Your task to perform on an android device: turn smart compose on in the gmail app Image 0: 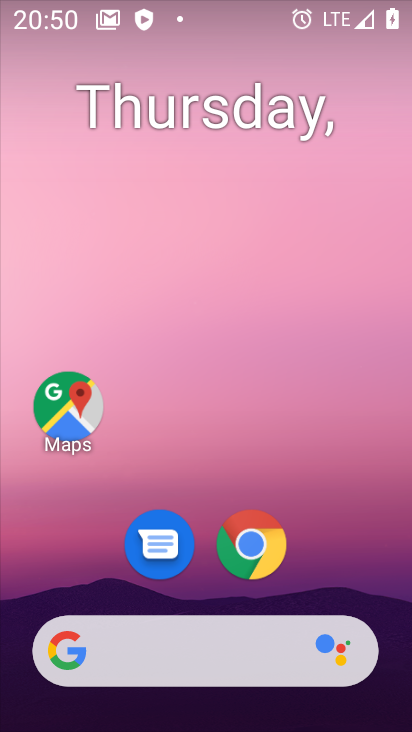
Step 0: drag from (193, 600) to (213, 14)
Your task to perform on an android device: turn smart compose on in the gmail app Image 1: 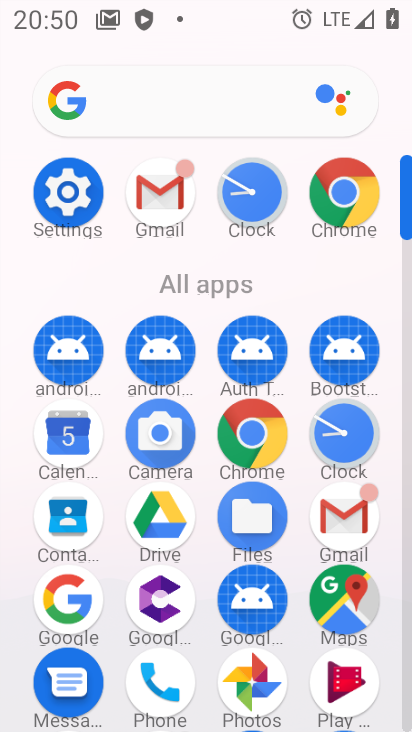
Step 1: click (341, 509)
Your task to perform on an android device: turn smart compose on in the gmail app Image 2: 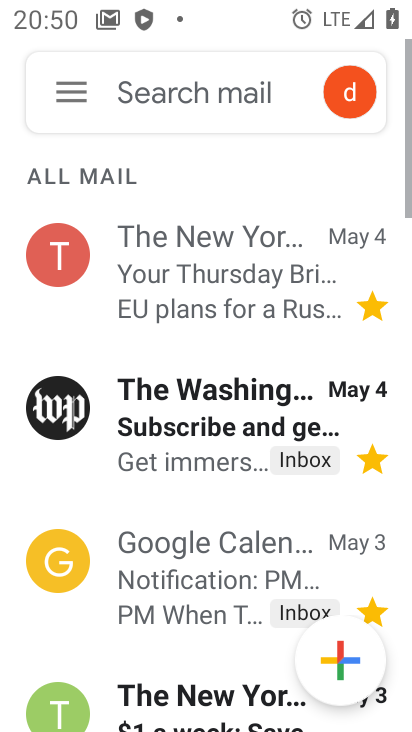
Step 2: click (76, 105)
Your task to perform on an android device: turn smart compose on in the gmail app Image 3: 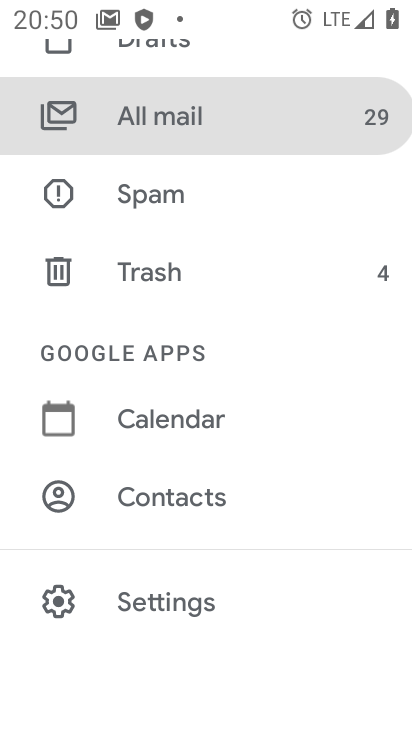
Step 3: click (154, 600)
Your task to perform on an android device: turn smart compose on in the gmail app Image 4: 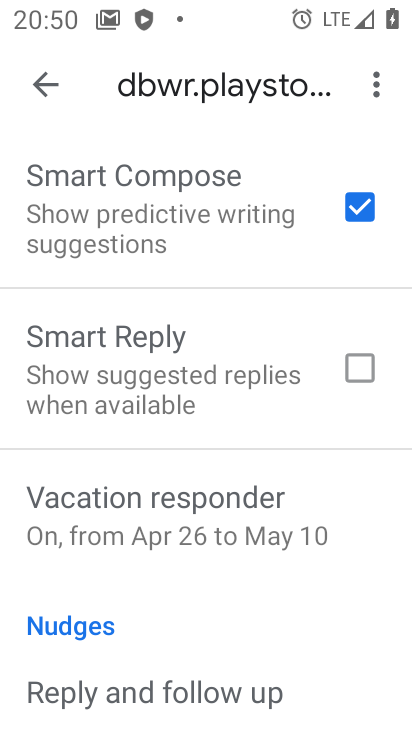
Step 4: task complete